Your task to perform on an android device: Open Google Chrome and open the bookmarks view Image 0: 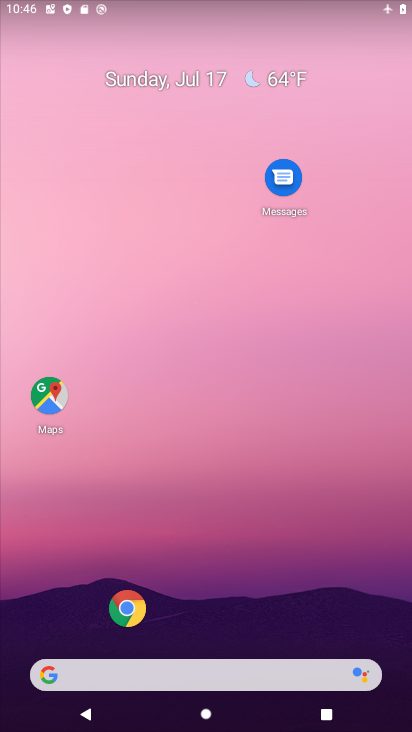
Step 0: click (119, 602)
Your task to perform on an android device: Open Google Chrome and open the bookmarks view Image 1: 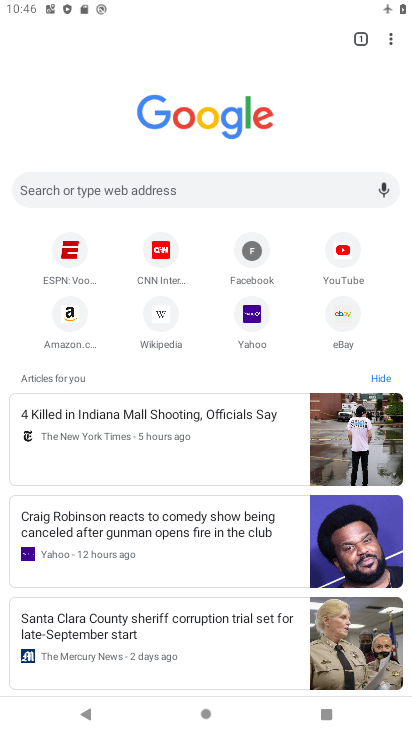
Step 1: click (390, 39)
Your task to perform on an android device: Open Google Chrome and open the bookmarks view Image 2: 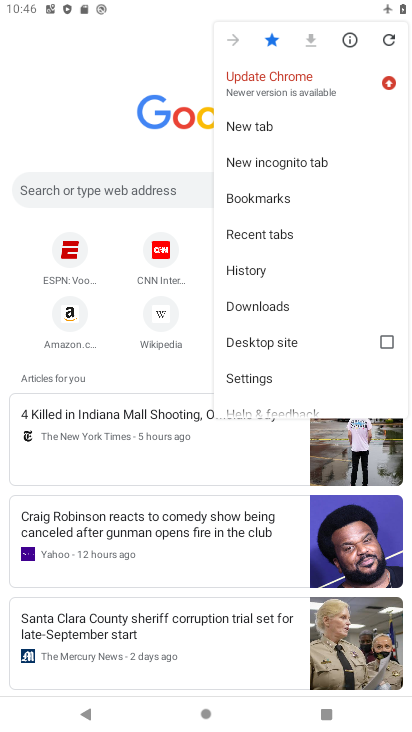
Step 2: click (252, 203)
Your task to perform on an android device: Open Google Chrome and open the bookmarks view Image 3: 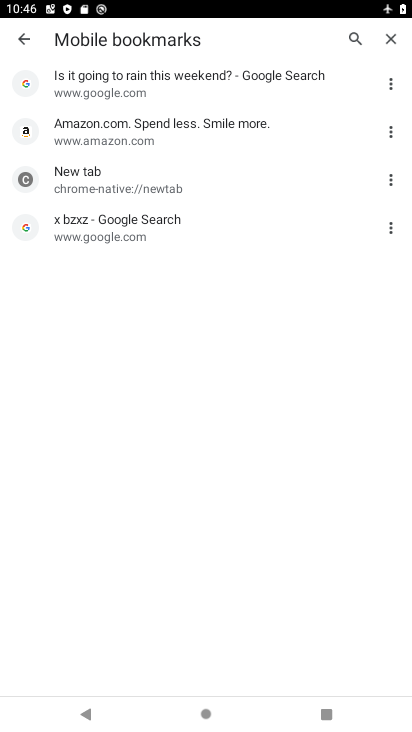
Step 3: task complete